Your task to perform on an android device: Open the calendar and show me this week's events? Image 0: 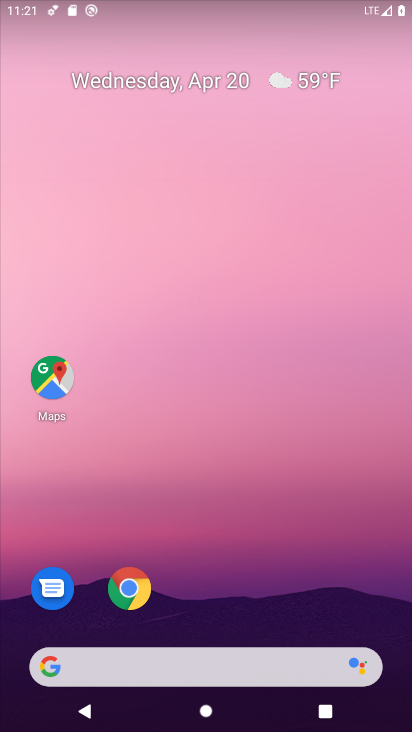
Step 0: drag from (226, 601) to (169, 8)
Your task to perform on an android device: Open the calendar and show me this week's events? Image 1: 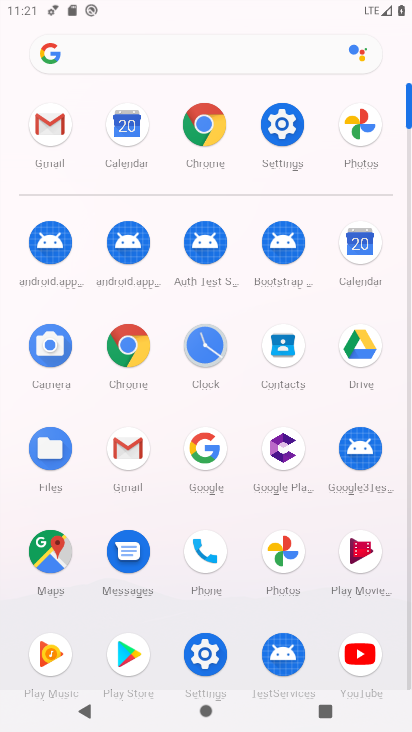
Step 1: click (357, 246)
Your task to perform on an android device: Open the calendar and show me this week's events? Image 2: 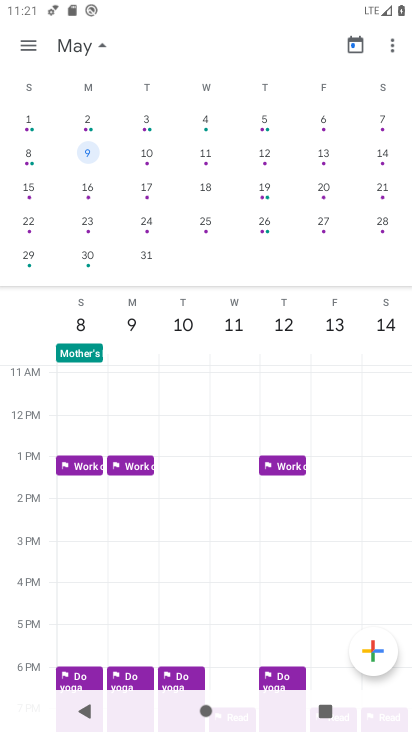
Step 2: click (362, 244)
Your task to perform on an android device: Open the calendar and show me this week's events? Image 3: 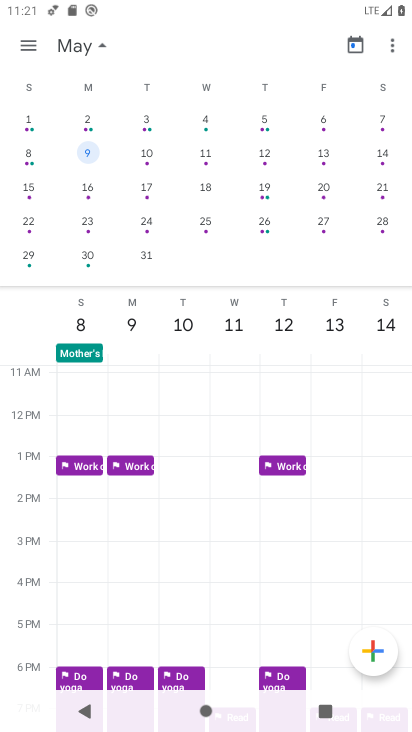
Step 3: task complete